Your task to perform on an android device: View the shopping cart on amazon.com. Image 0: 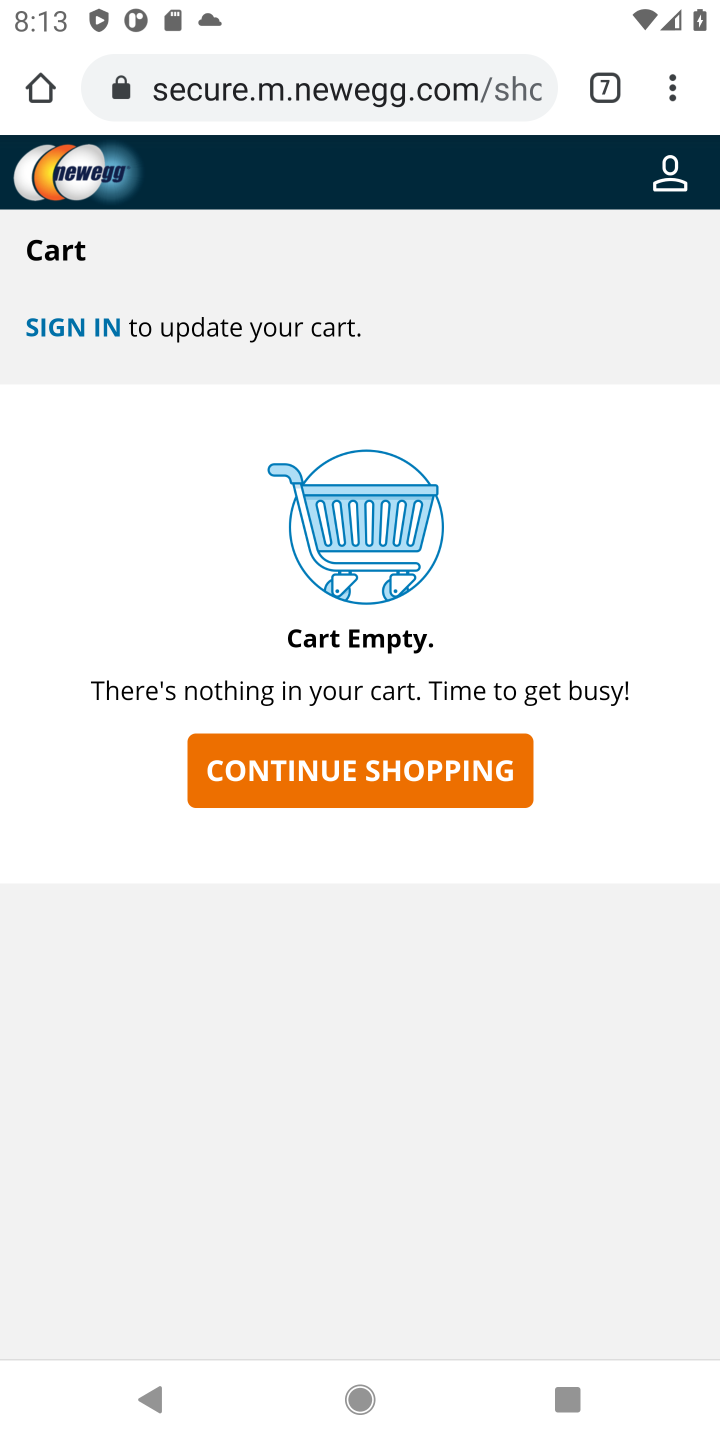
Step 0: click (595, 73)
Your task to perform on an android device: View the shopping cart on amazon.com. Image 1: 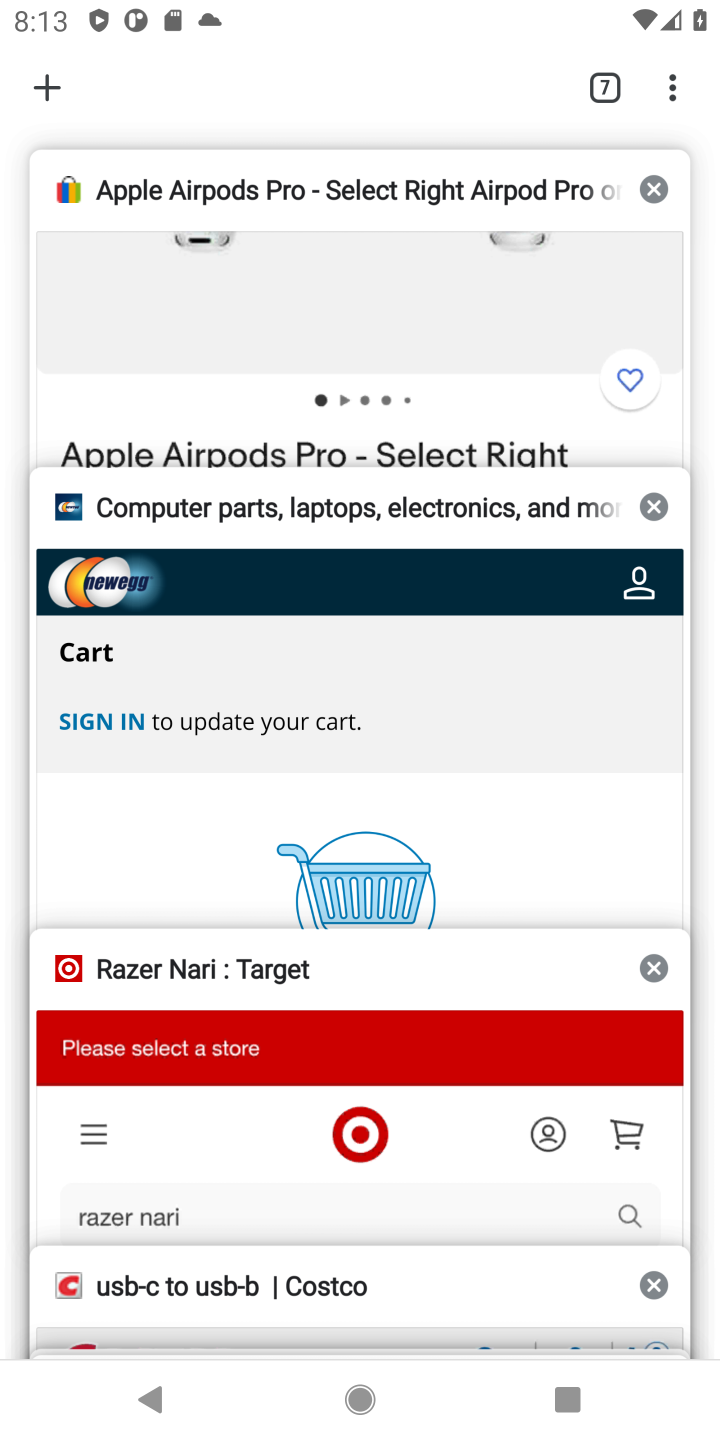
Step 1: drag from (336, 1279) to (502, 519)
Your task to perform on an android device: View the shopping cart on amazon.com. Image 2: 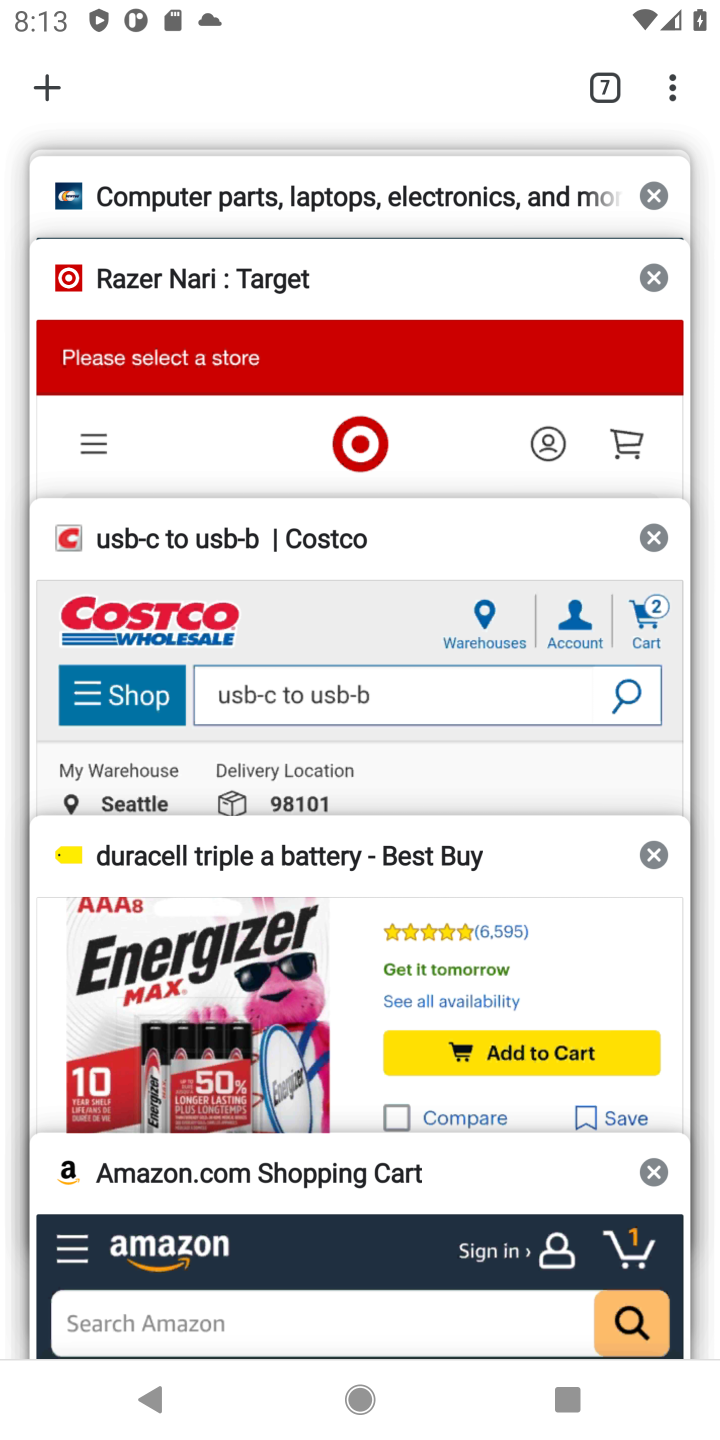
Step 2: click (215, 1255)
Your task to perform on an android device: View the shopping cart on amazon.com. Image 3: 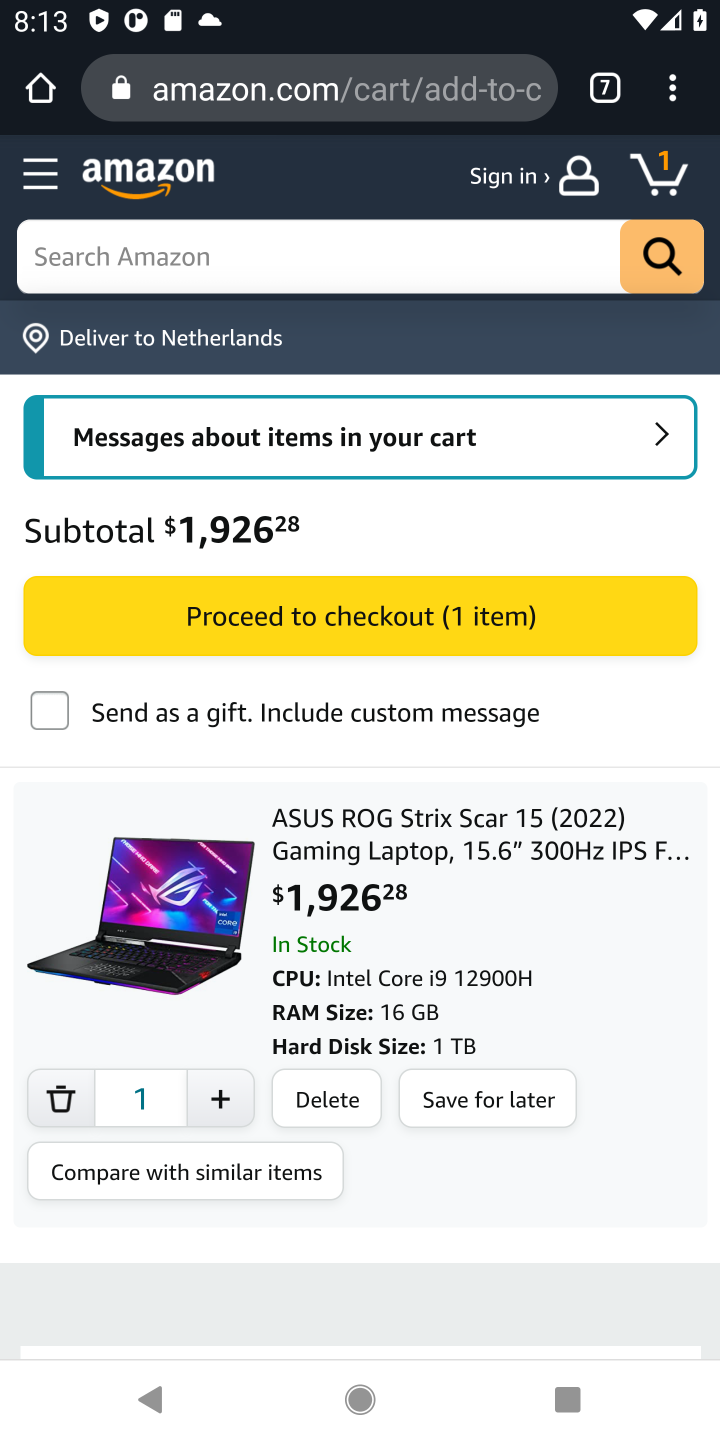
Step 3: task complete